Your task to perform on an android device: delete browsing data in the chrome app Image 0: 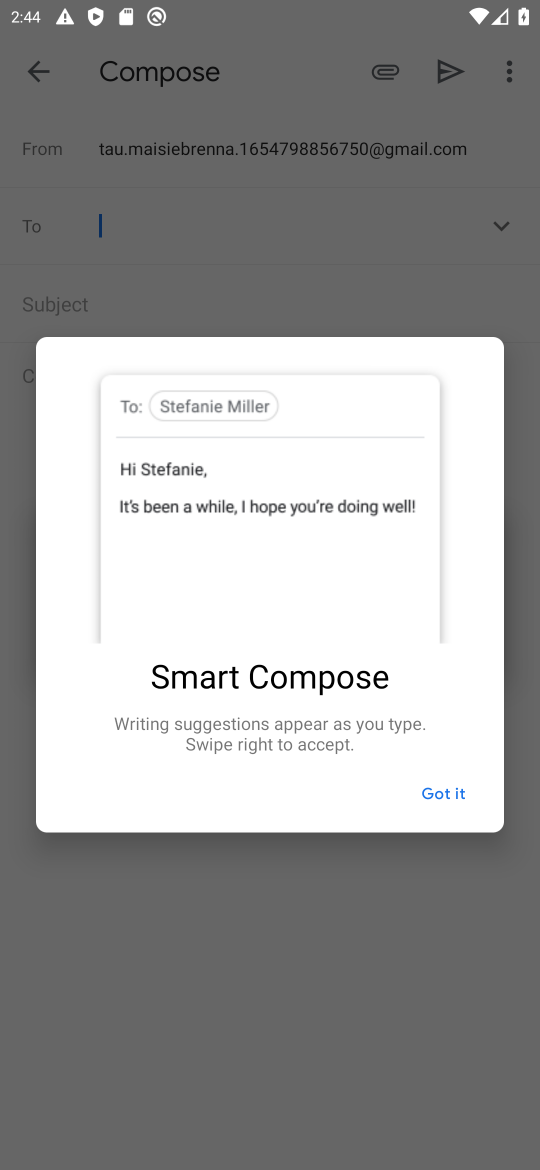
Step 0: press home button
Your task to perform on an android device: delete browsing data in the chrome app Image 1: 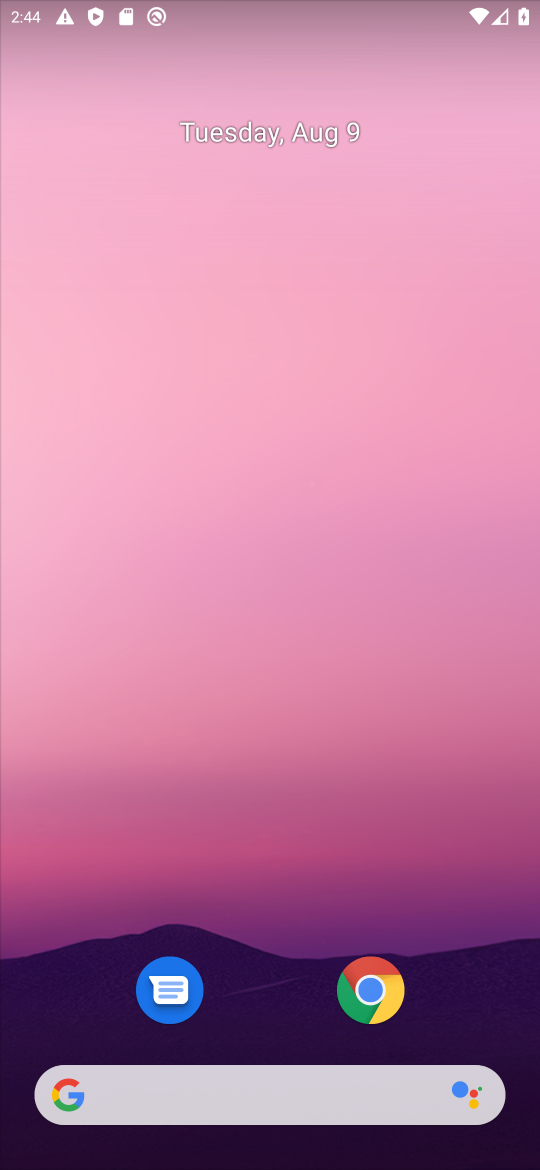
Step 1: drag from (401, 1095) to (385, 175)
Your task to perform on an android device: delete browsing data in the chrome app Image 2: 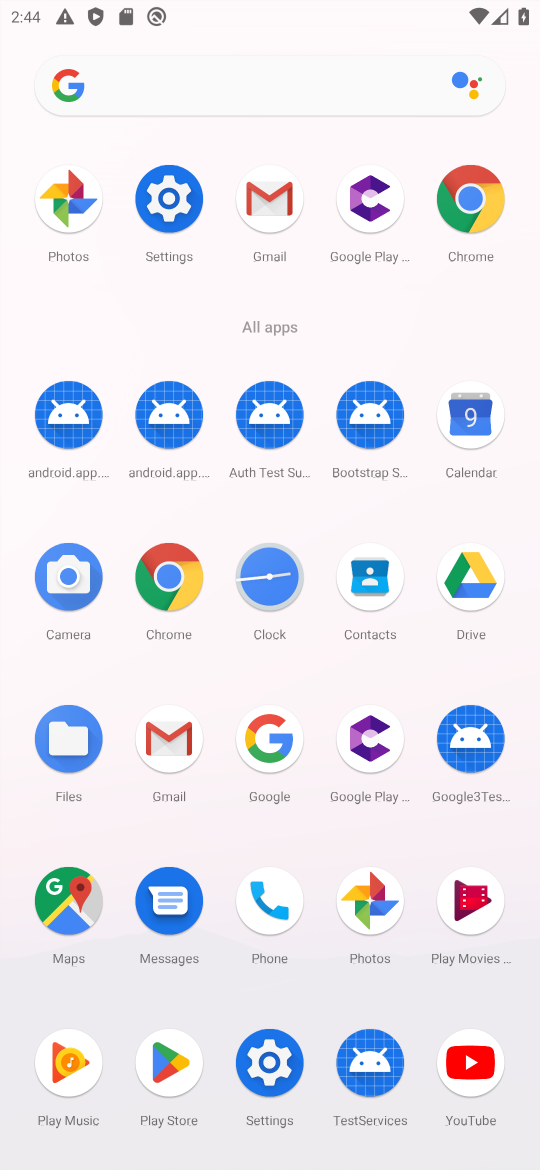
Step 2: click (149, 582)
Your task to perform on an android device: delete browsing data in the chrome app Image 3: 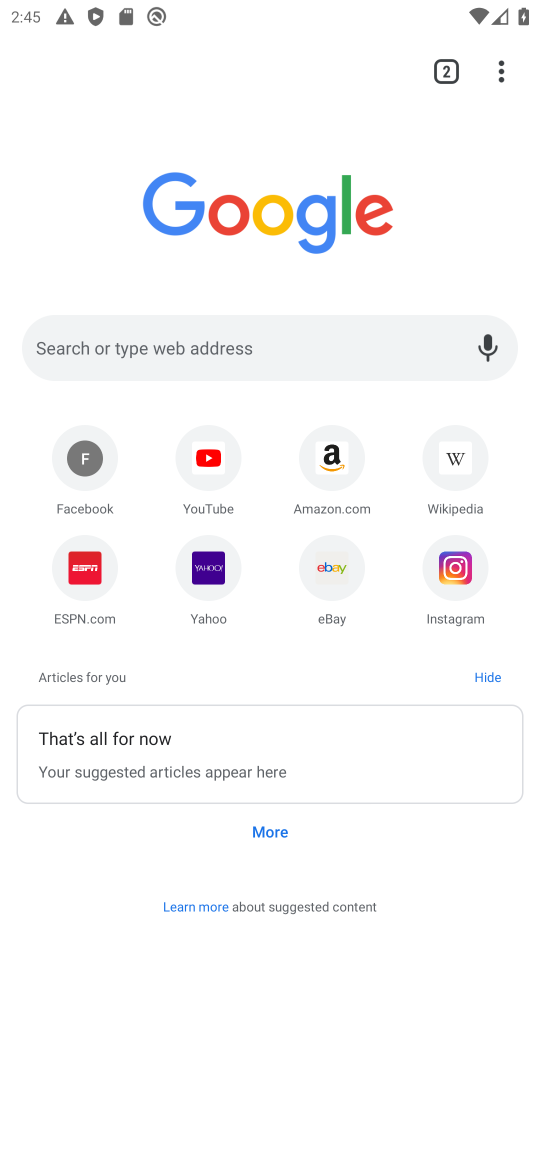
Step 3: click (492, 61)
Your task to perform on an android device: delete browsing data in the chrome app Image 4: 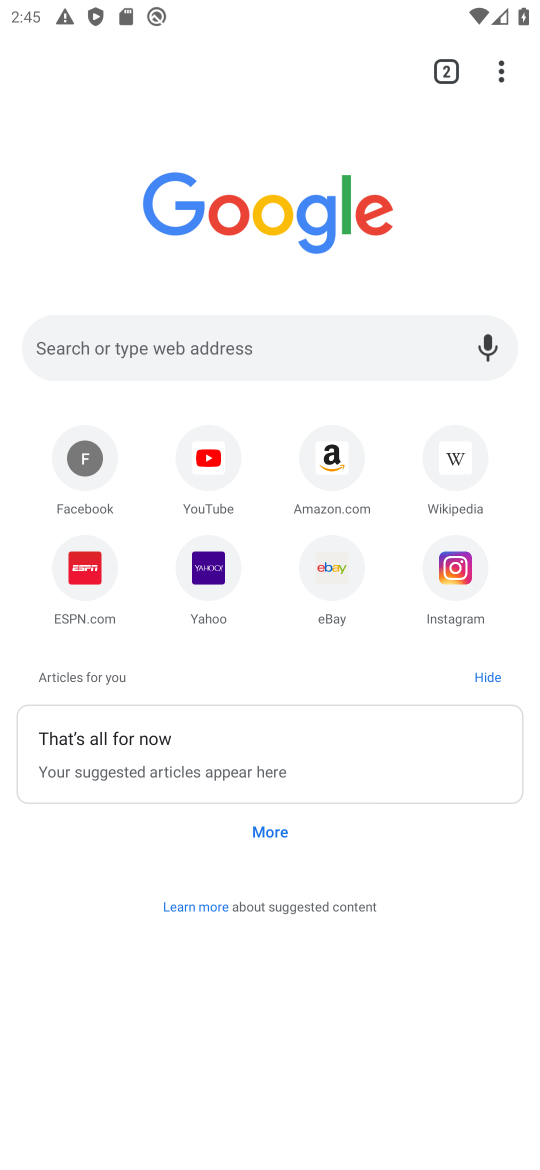
Step 4: click (499, 70)
Your task to perform on an android device: delete browsing data in the chrome app Image 5: 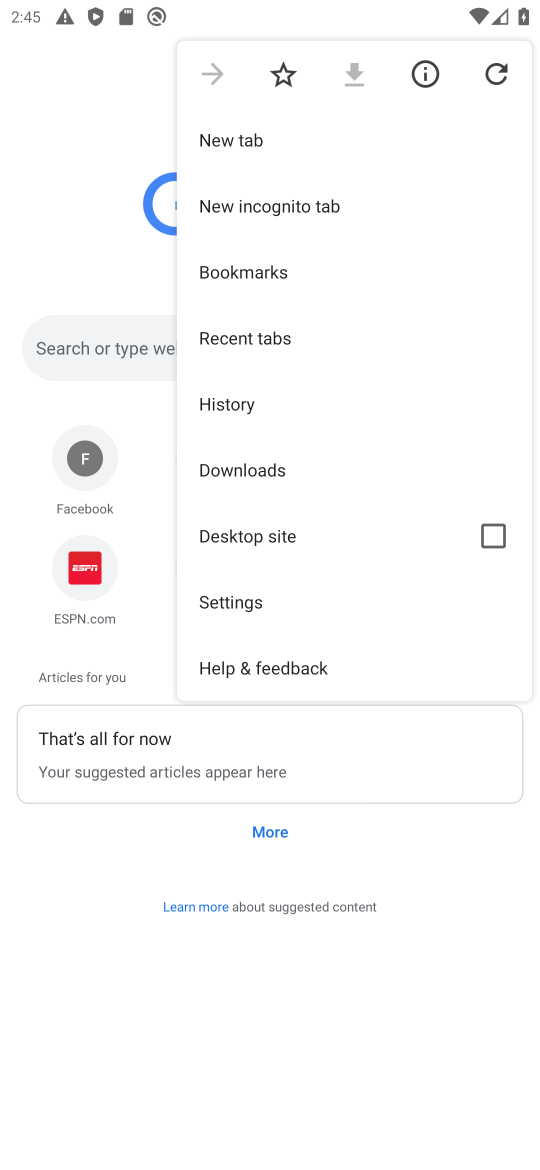
Step 5: click (240, 420)
Your task to perform on an android device: delete browsing data in the chrome app Image 6: 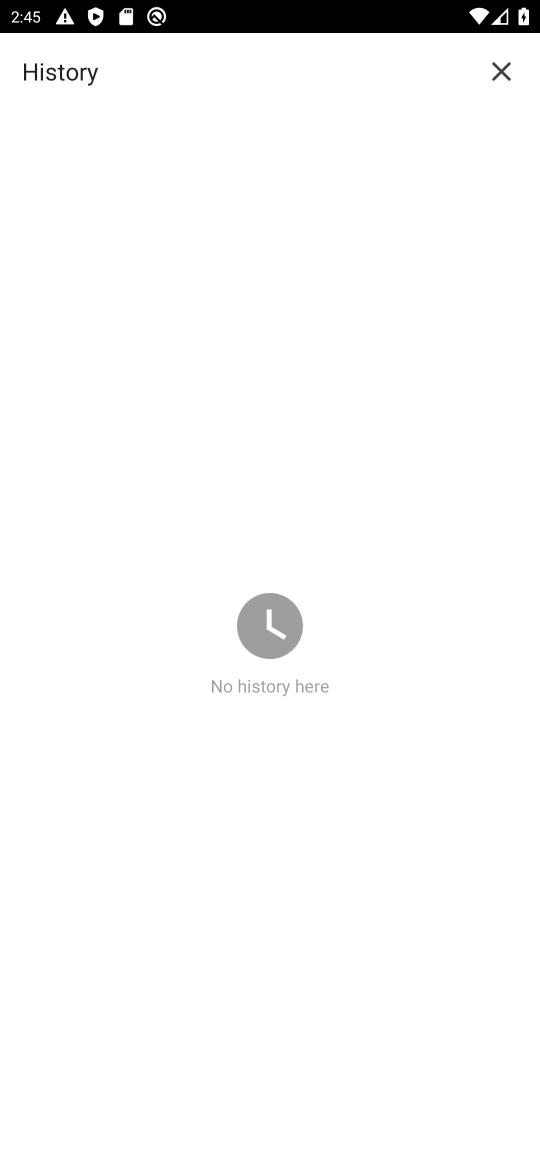
Step 6: task complete